Your task to perform on an android device: open wifi settings Image 0: 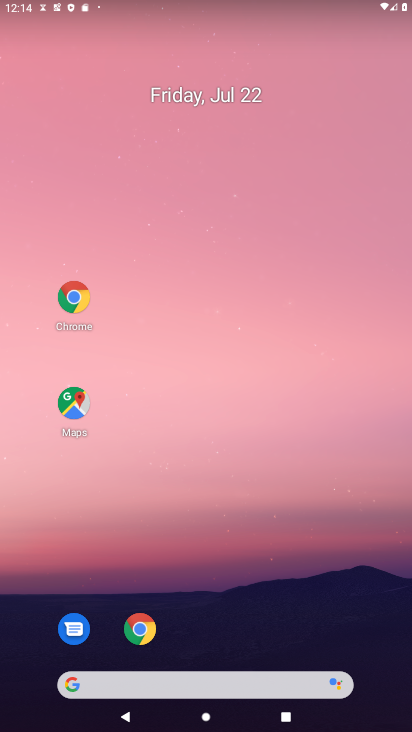
Step 0: drag from (232, 626) to (241, 156)
Your task to perform on an android device: open wifi settings Image 1: 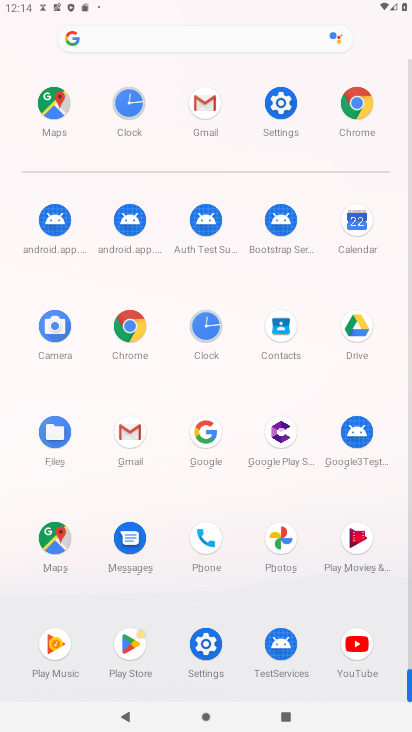
Step 1: click (276, 88)
Your task to perform on an android device: open wifi settings Image 2: 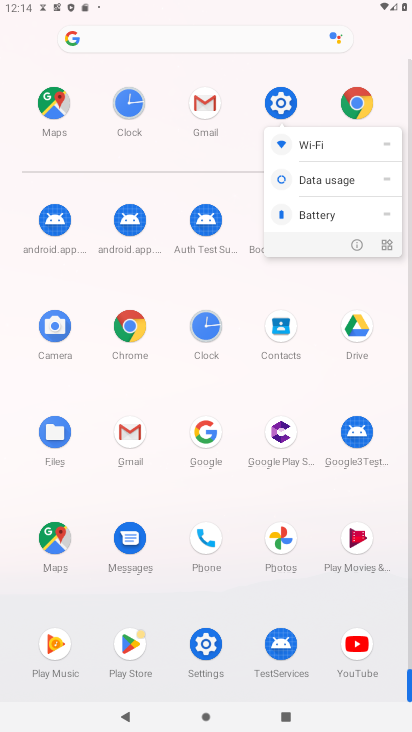
Step 2: click (277, 88)
Your task to perform on an android device: open wifi settings Image 3: 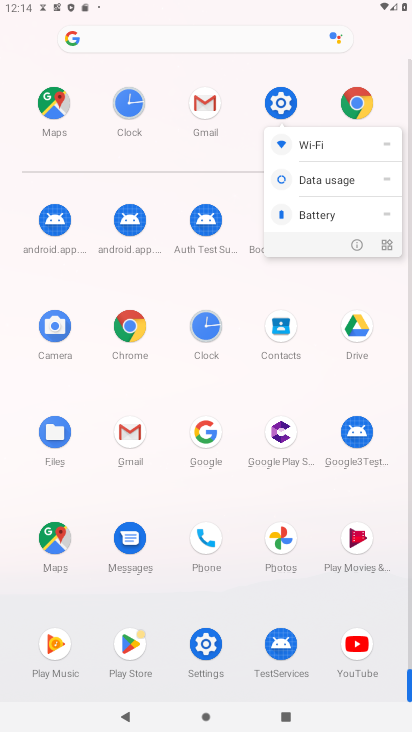
Step 3: click (281, 99)
Your task to perform on an android device: open wifi settings Image 4: 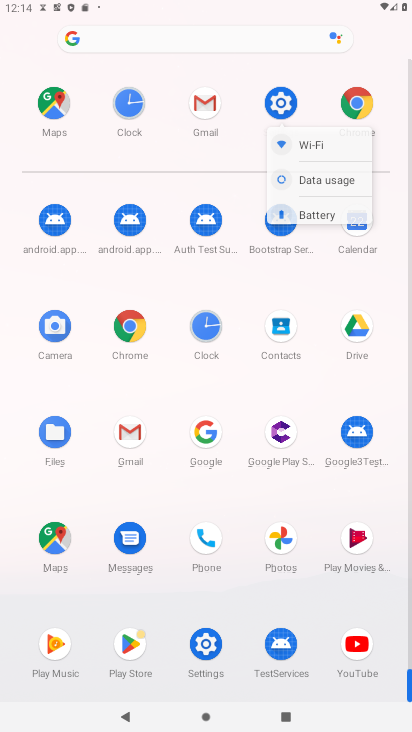
Step 4: click (282, 100)
Your task to perform on an android device: open wifi settings Image 5: 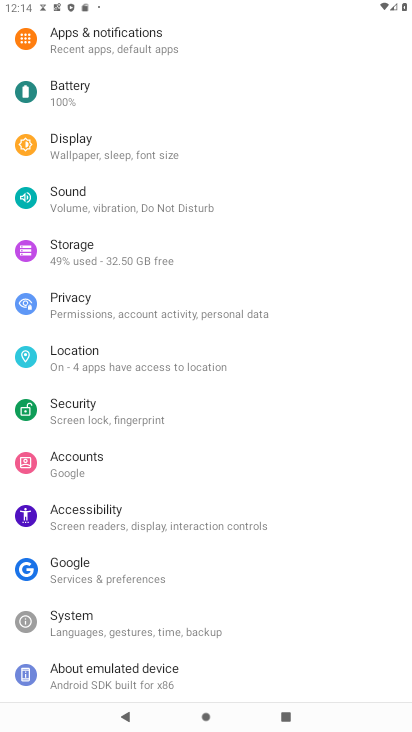
Step 5: click (285, 103)
Your task to perform on an android device: open wifi settings Image 6: 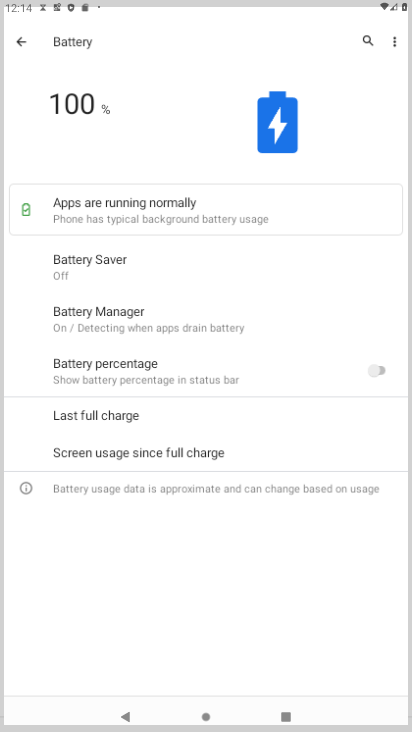
Step 6: drag from (105, 110) to (167, 476)
Your task to perform on an android device: open wifi settings Image 7: 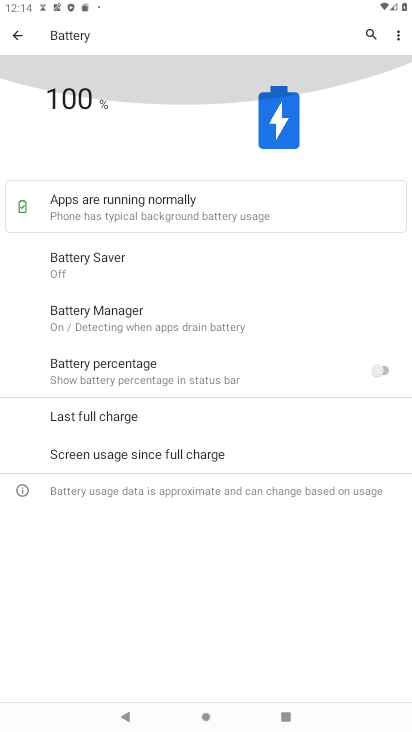
Step 7: drag from (149, 182) to (183, 499)
Your task to perform on an android device: open wifi settings Image 8: 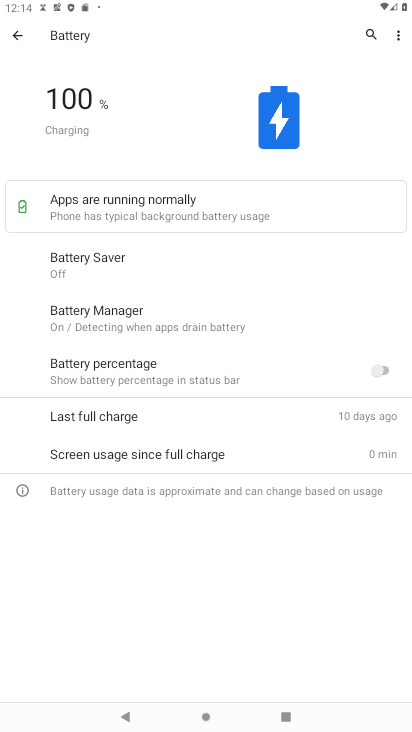
Step 8: click (18, 39)
Your task to perform on an android device: open wifi settings Image 9: 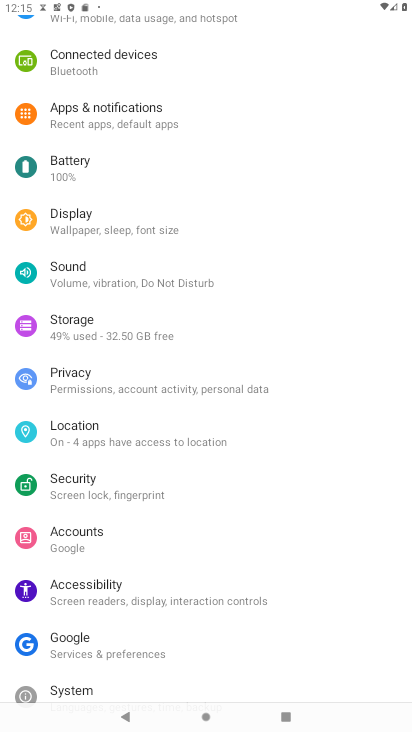
Step 9: drag from (97, 106) to (117, 647)
Your task to perform on an android device: open wifi settings Image 10: 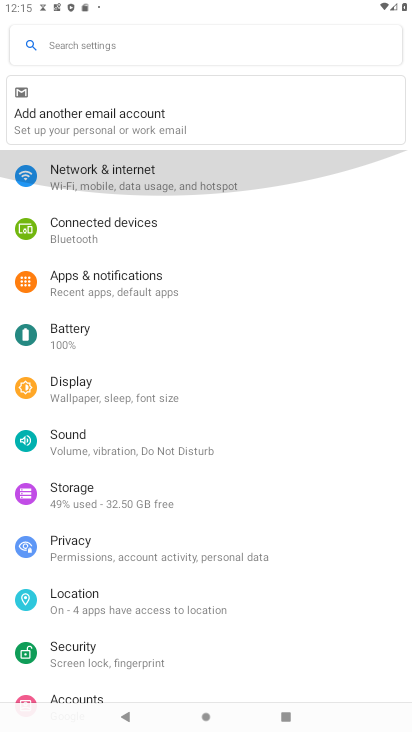
Step 10: drag from (130, 199) to (157, 652)
Your task to perform on an android device: open wifi settings Image 11: 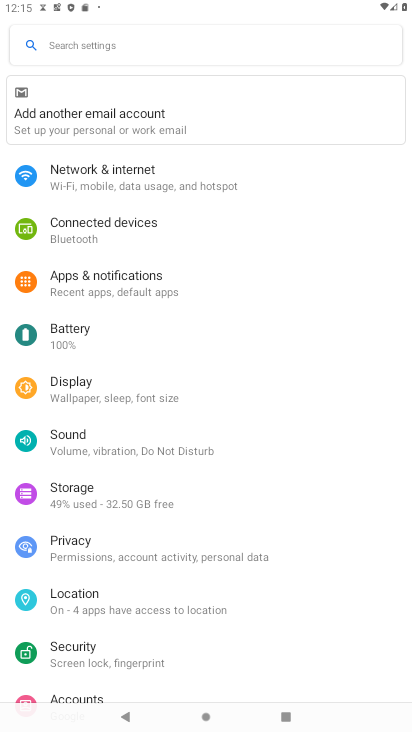
Step 11: click (120, 168)
Your task to perform on an android device: open wifi settings Image 12: 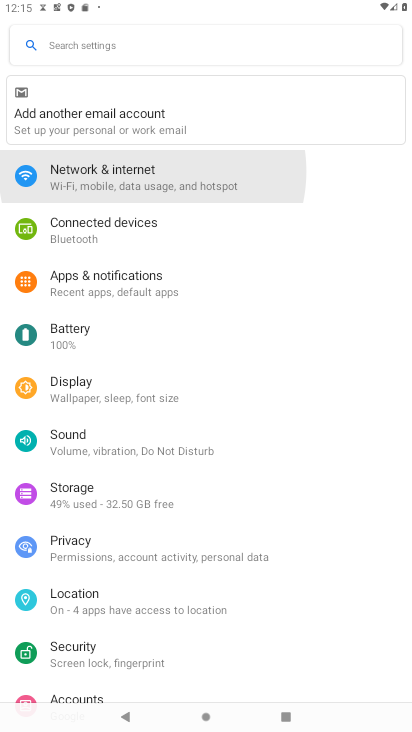
Step 12: click (120, 168)
Your task to perform on an android device: open wifi settings Image 13: 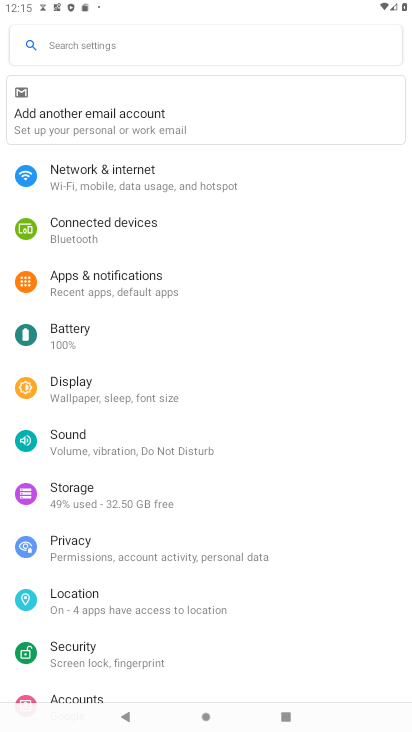
Step 13: click (119, 175)
Your task to perform on an android device: open wifi settings Image 14: 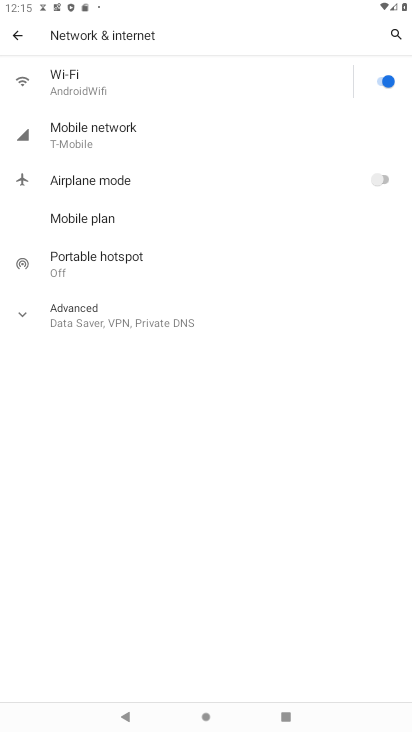
Step 14: task complete